Your task to perform on an android device: open sync settings in chrome Image 0: 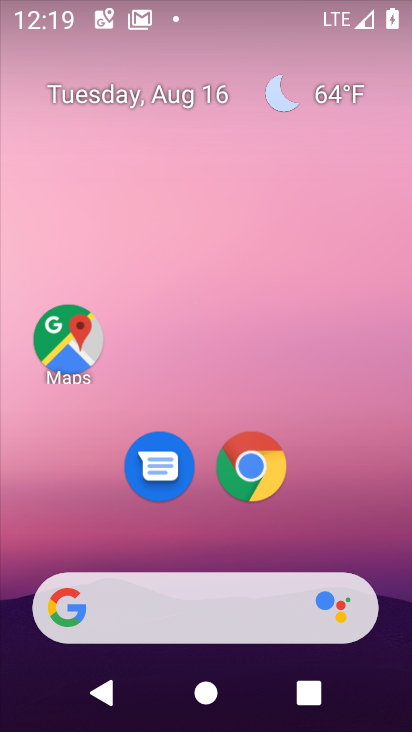
Step 0: drag from (183, 489) to (237, 199)
Your task to perform on an android device: open sync settings in chrome Image 1: 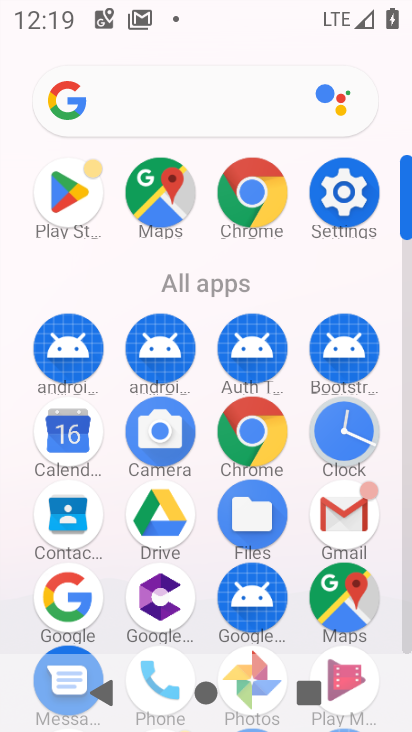
Step 1: click (240, 204)
Your task to perform on an android device: open sync settings in chrome Image 2: 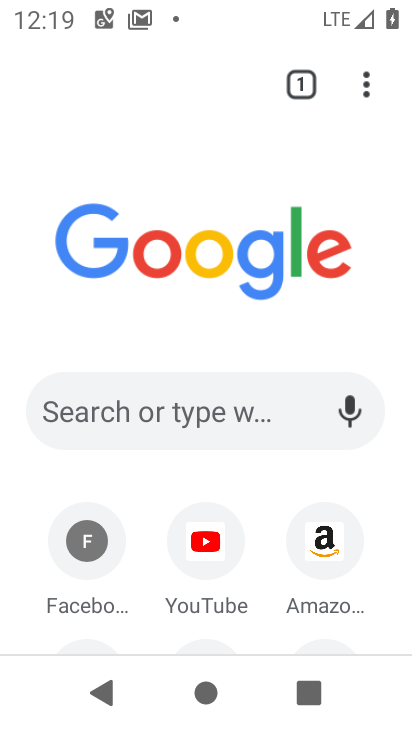
Step 2: click (372, 81)
Your task to perform on an android device: open sync settings in chrome Image 3: 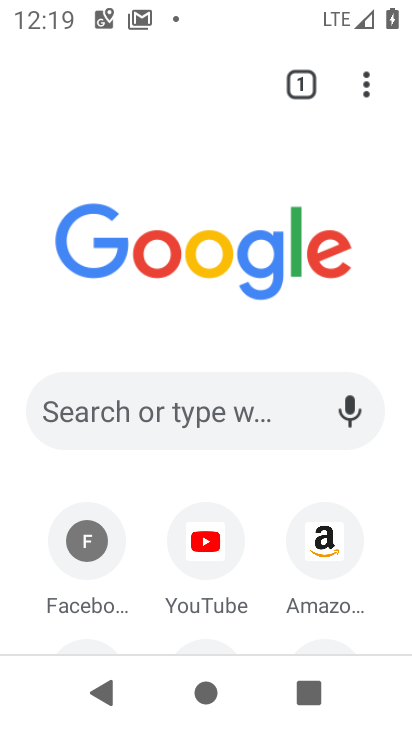
Step 3: click (348, 85)
Your task to perform on an android device: open sync settings in chrome Image 4: 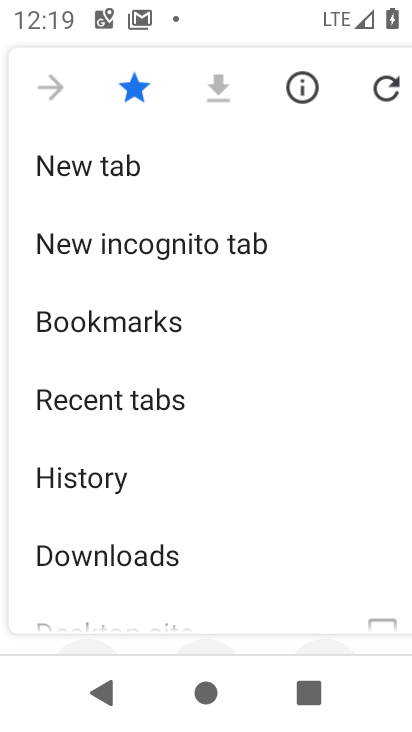
Step 4: drag from (126, 553) to (204, 230)
Your task to perform on an android device: open sync settings in chrome Image 5: 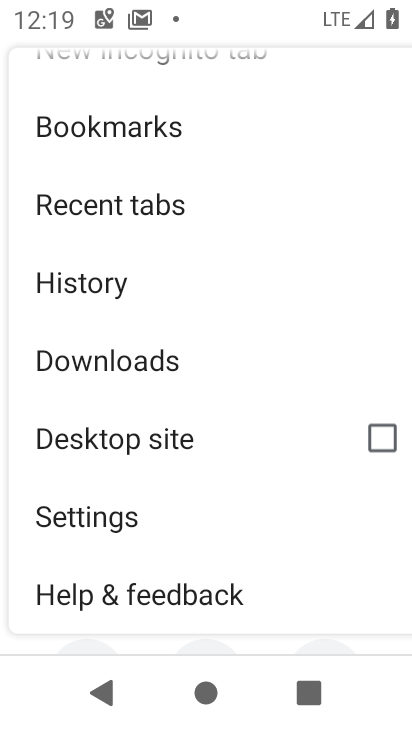
Step 5: click (86, 520)
Your task to perform on an android device: open sync settings in chrome Image 6: 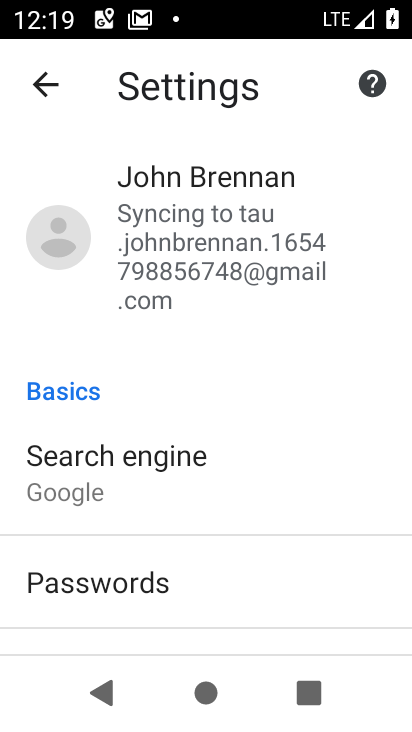
Step 6: click (169, 258)
Your task to perform on an android device: open sync settings in chrome Image 7: 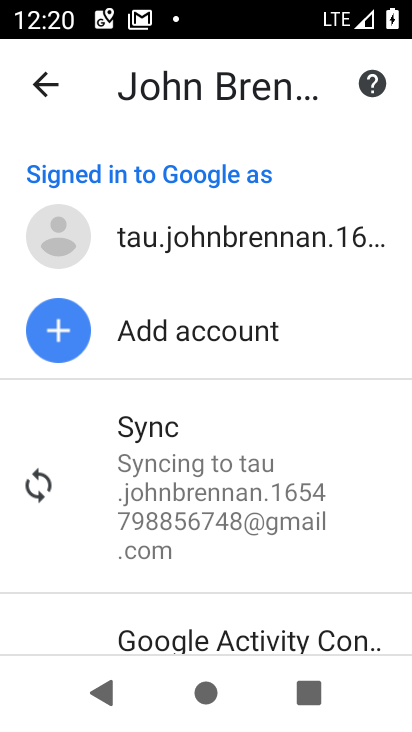
Step 7: click (182, 468)
Your task to perform on an android device: open sync settings in chrome Image 8: 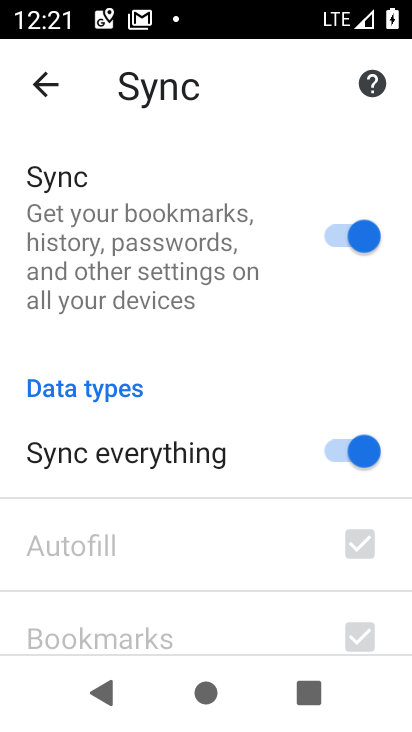
Step 8: task complete